Your task to perform on an android device: open a bookmark in the chrome app Image 0: 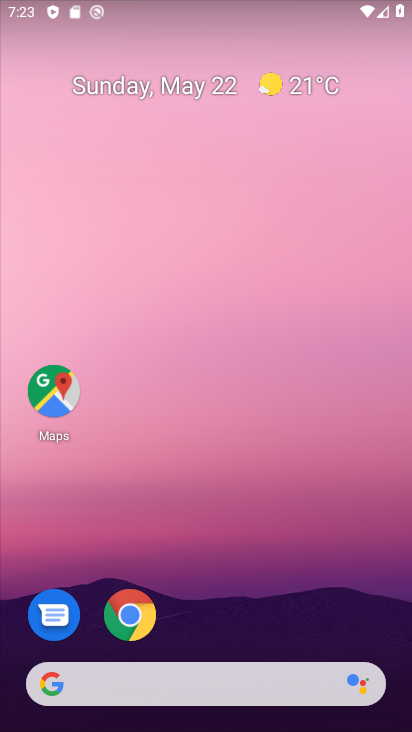
Step 0: drag from (274, 642) to (258, 567)
Your task to perform on an android device: open a bookmark in the chrome app Image 1: 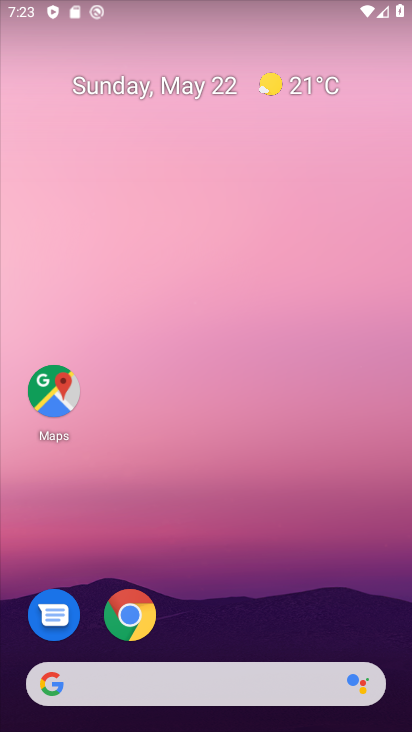
Step 1: click (138, 602)
Your task to perform on an android device: open a bookmark in the chrome app Image 2: 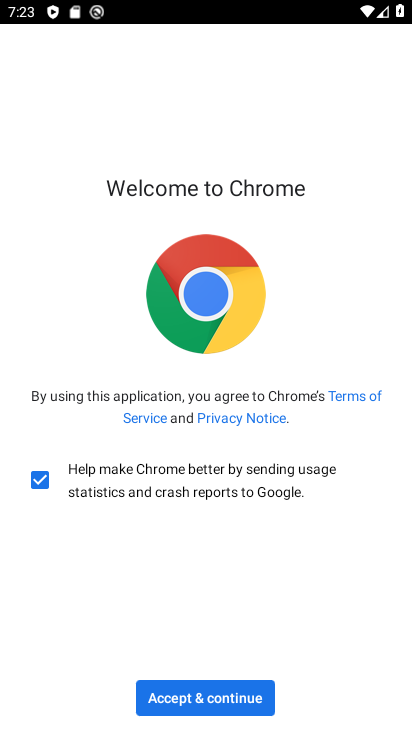
Step 2: click (215, 690)
Your task to perform on an android device: open a bookmark in the chrome app Image 3: 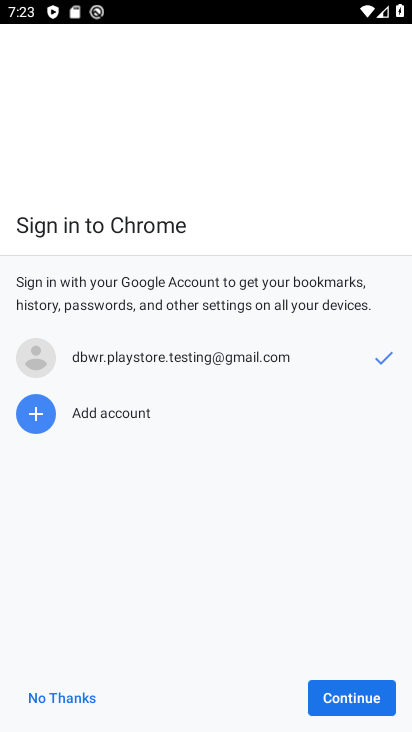
Step 3: click (331, 690)
Your task to perform on an android device: open a bookmark in the chrome app Image 4: 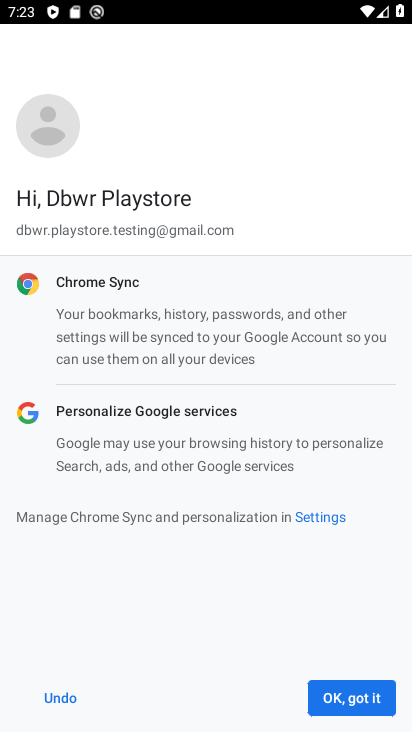
Step 4: click (336, 687)
Your task to perform on an android device: open a bookmark in the chrome app Image 5: 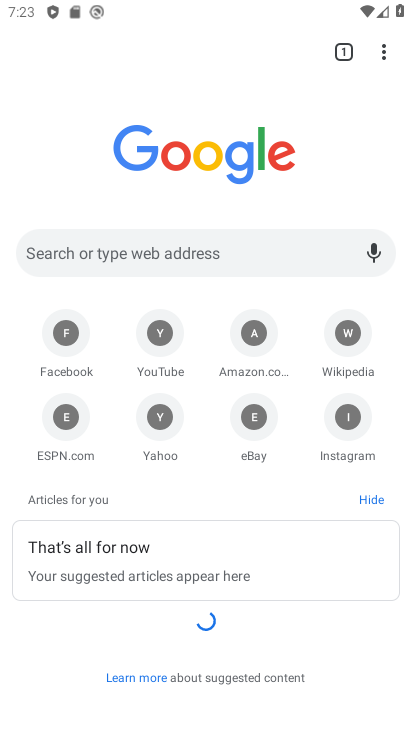
Step 5: click (368, 54)
Your task to perform on an android device: open a bookmark in the chrome app Image 6: 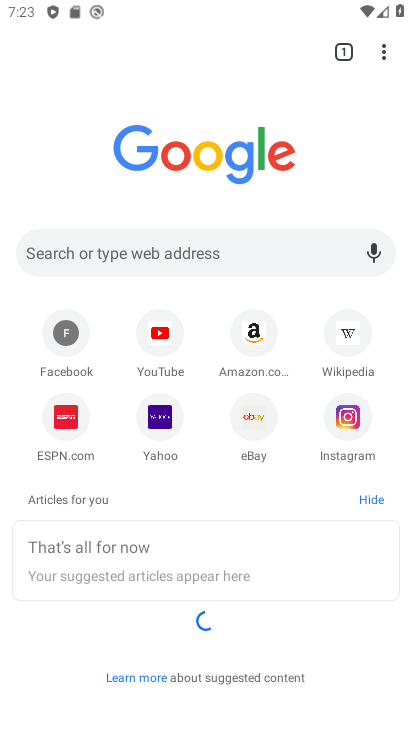
Step 6: click (388, 46)
Your task to perform on an android device: open a bookmark in the chrome app Image 7: 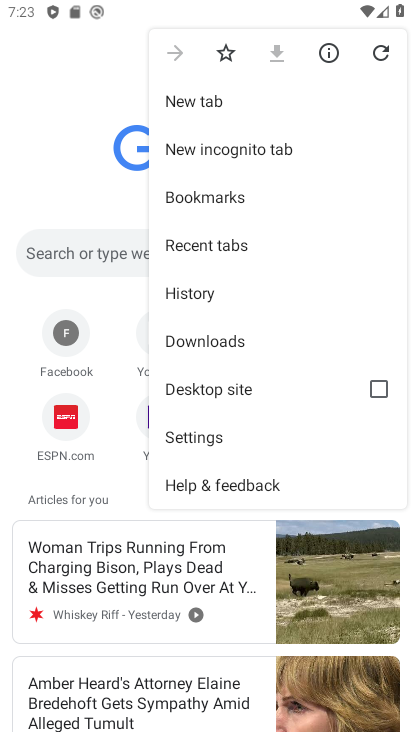
Step 7: click (229, 193)
Your task to perform on an android device: open a bookmark in the chrome app Image 8: 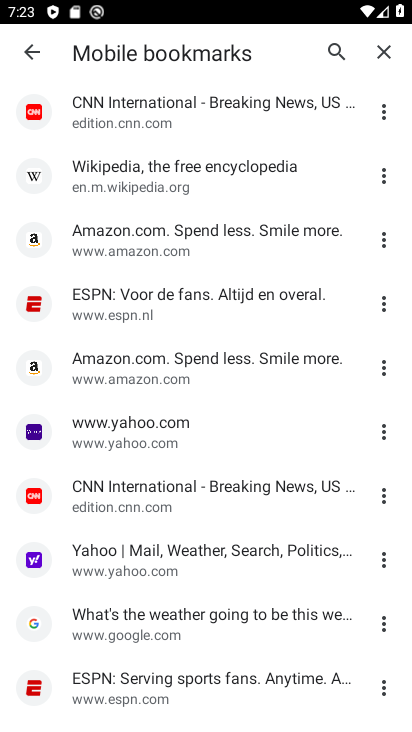
Step 8: task complete